Your task to perform on an android device: toggle wifi Image 0: 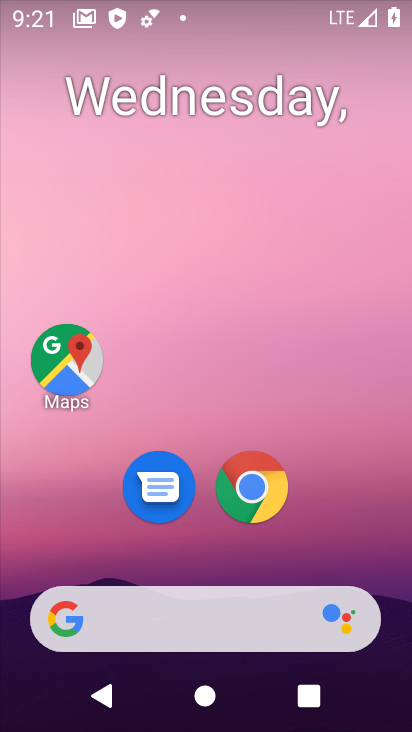
Step 0: drag from (160, 628) to (298, 117)
Your task to perform on an android device: toggle wifi Image 1: 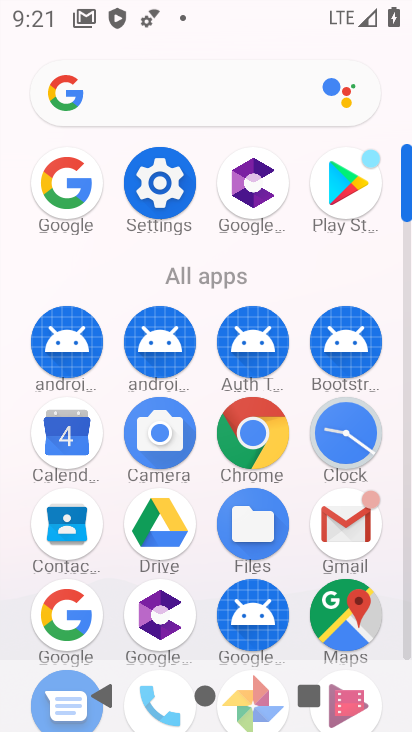
Step 1: click (149, 177)
Your task to perform on an android device: toggle wifi Image 2: 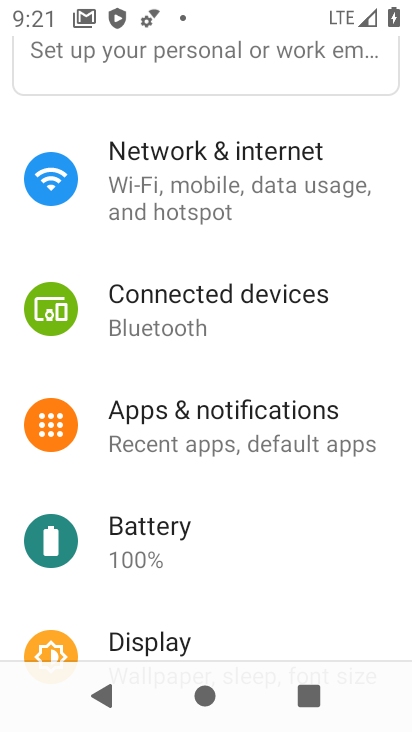
Step 2: click (259, 180)
Your task to perform on an android device: toggle wifi Image 3: 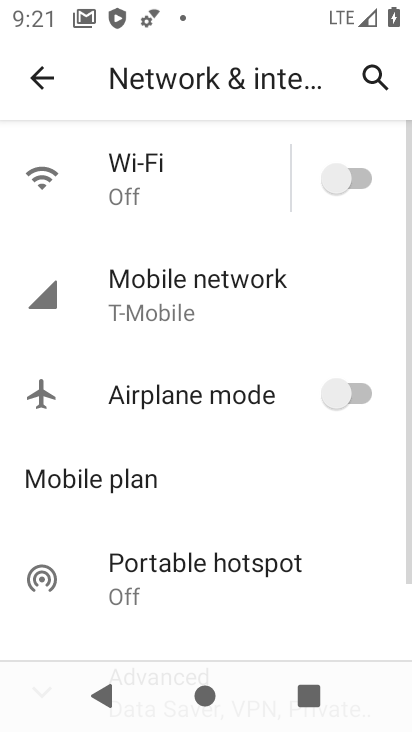
Step 3: click (359, 181)
Your task to perform on an android device: toggle wifi Image 4: 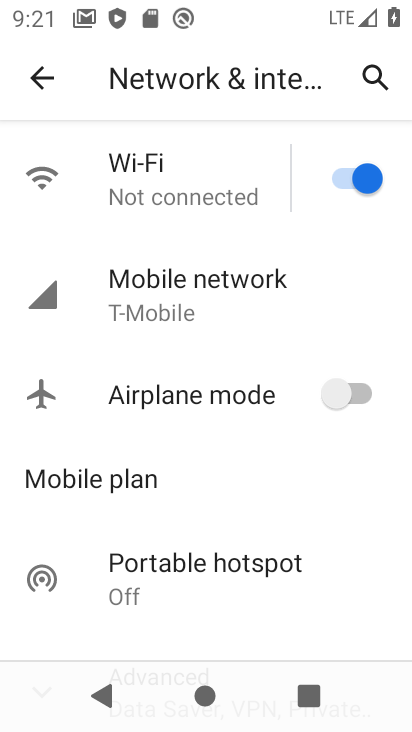
Step 4: task complete